Your task to perform on an android device: add a contact in the contacts app Image 0: 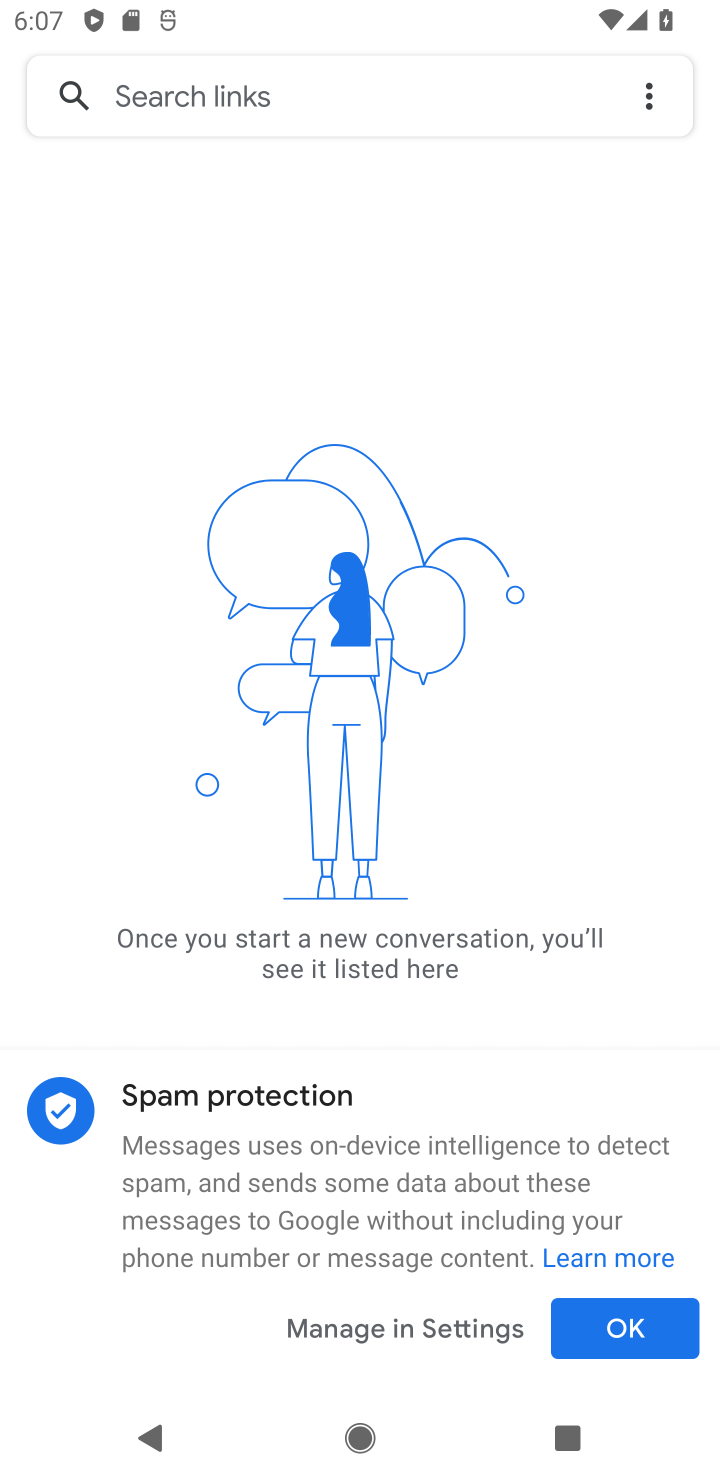
Step 0: press home button
Your task to perform on an android device: add a contact in the contacts app Image 1: 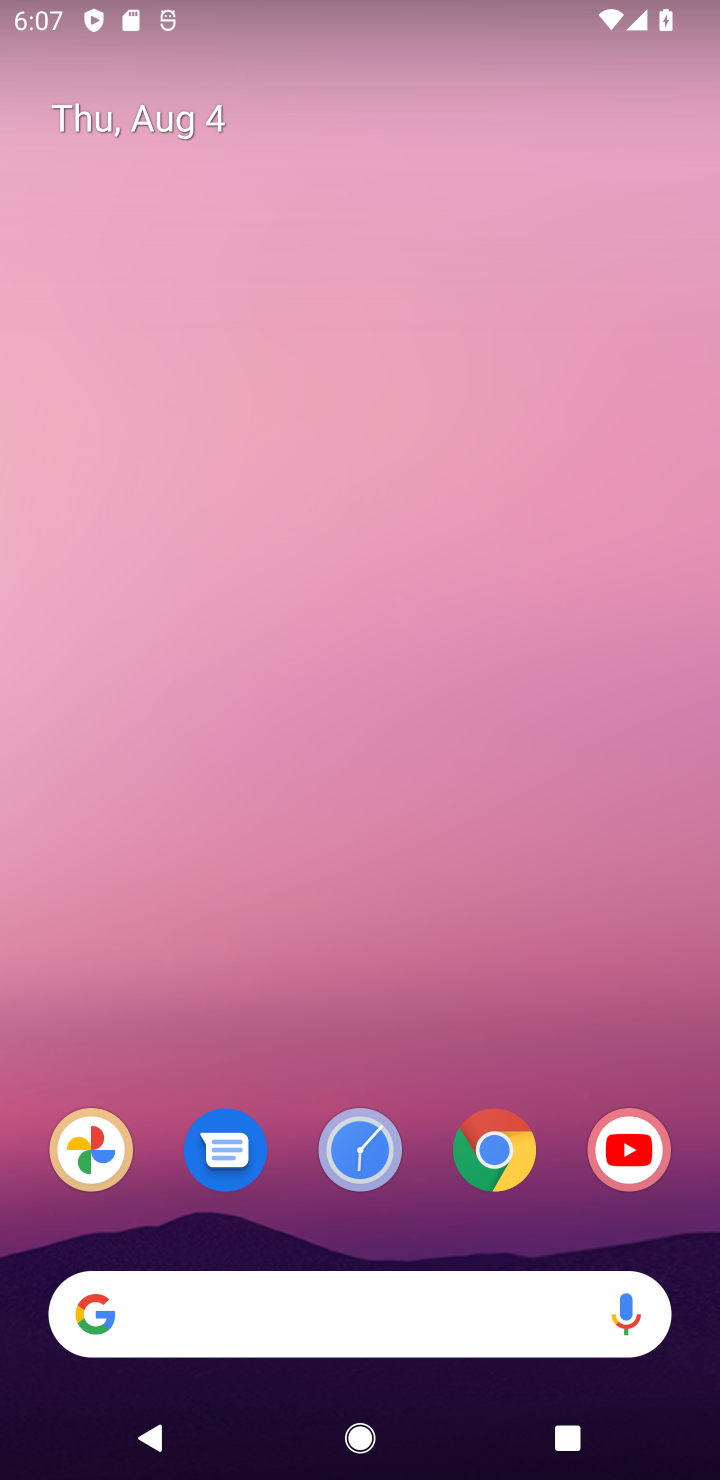
Step 1: drag from (310, 1312) to (393, 5)
Your task to perform on an android device: add a contact in the contacts app Image 2: 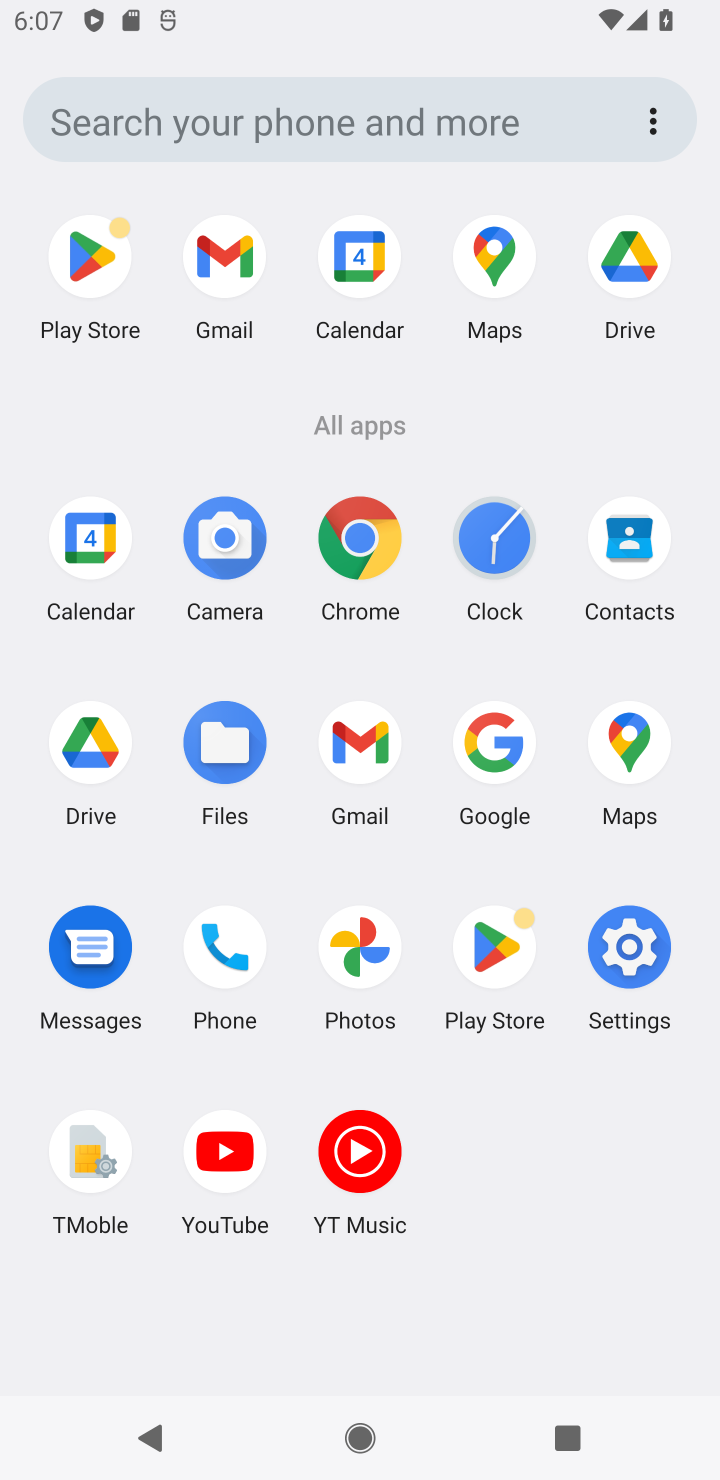
Step 2: click (614, 540)
Your task to perform on an android device: add a contact in the contacts app Image 3: 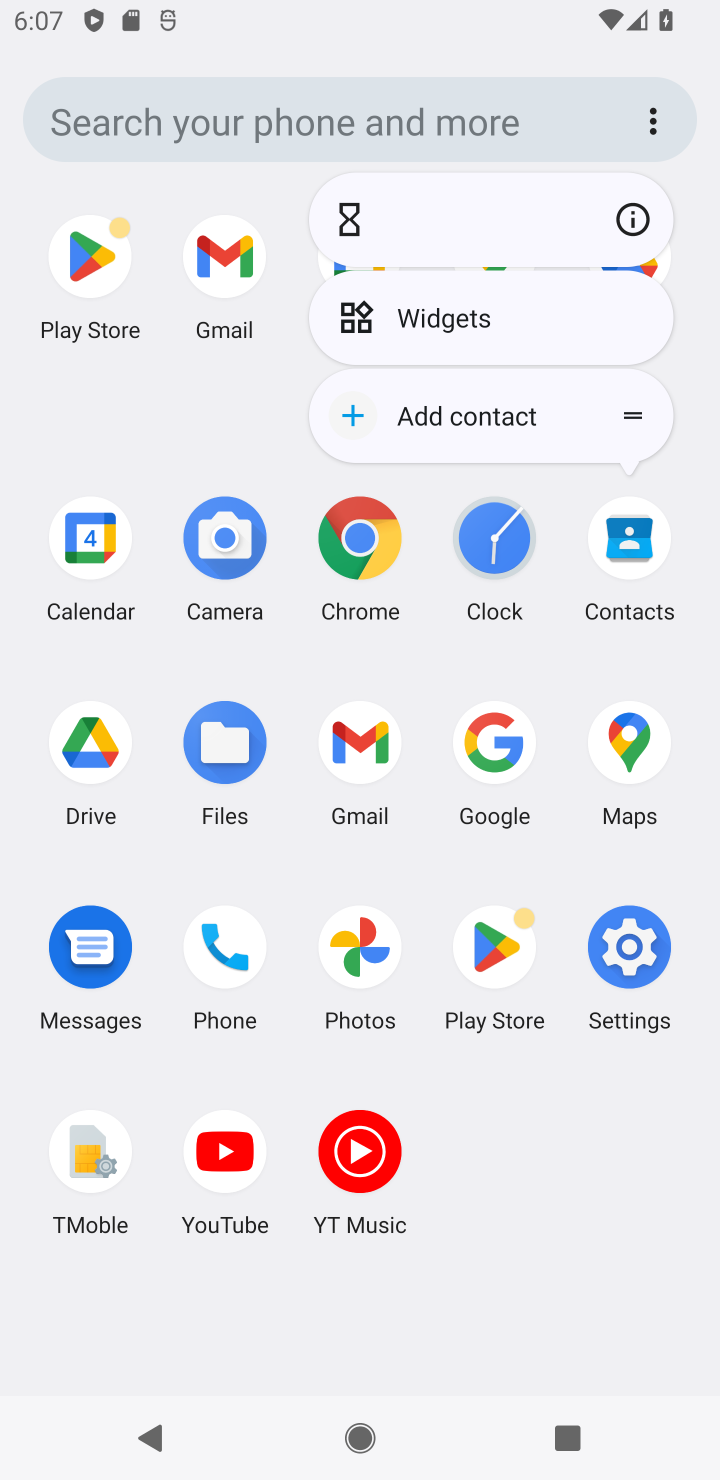
Step 3: click (673, 531)
Your task to perform on an android device: add a contact in the contacts app Image 4: 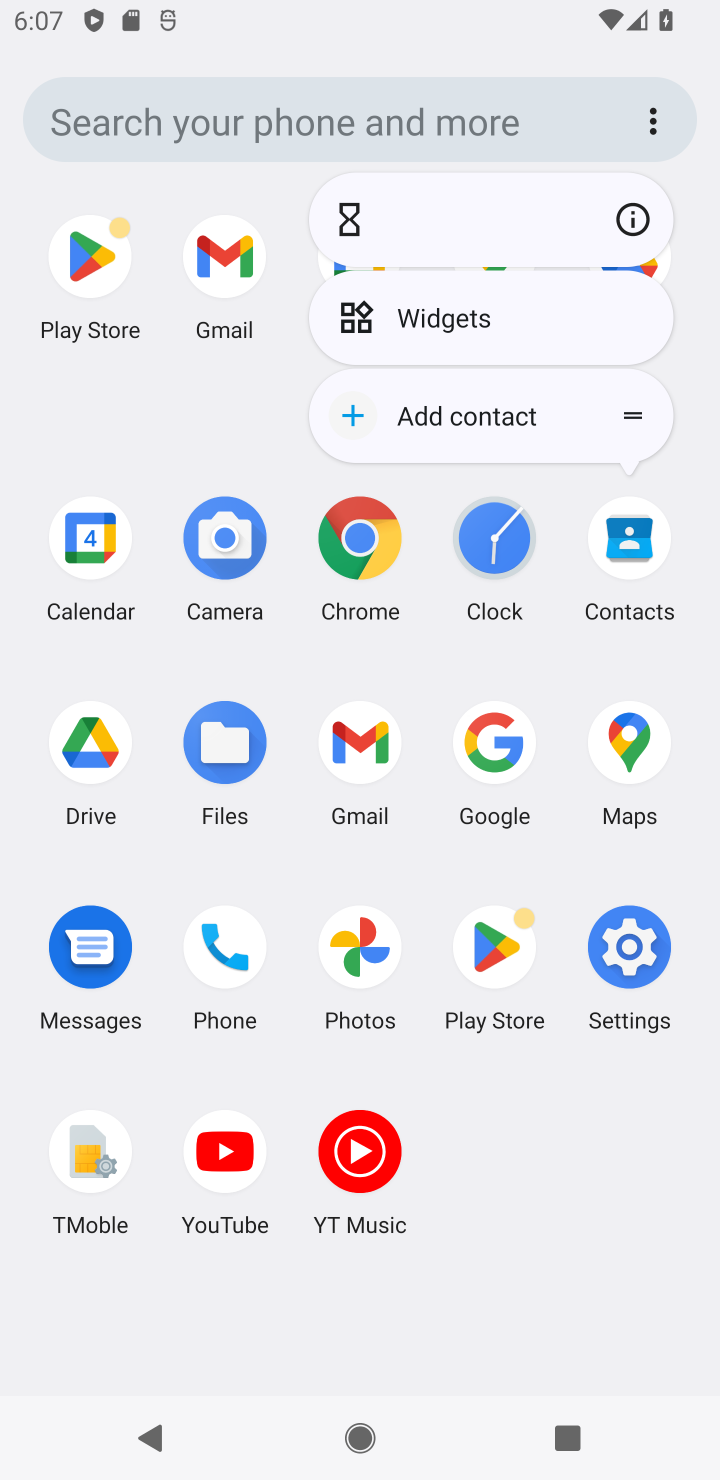
Step 4: click (649, 537)
Your task to perform on an android device: add a contact in the contacts app Image 5: 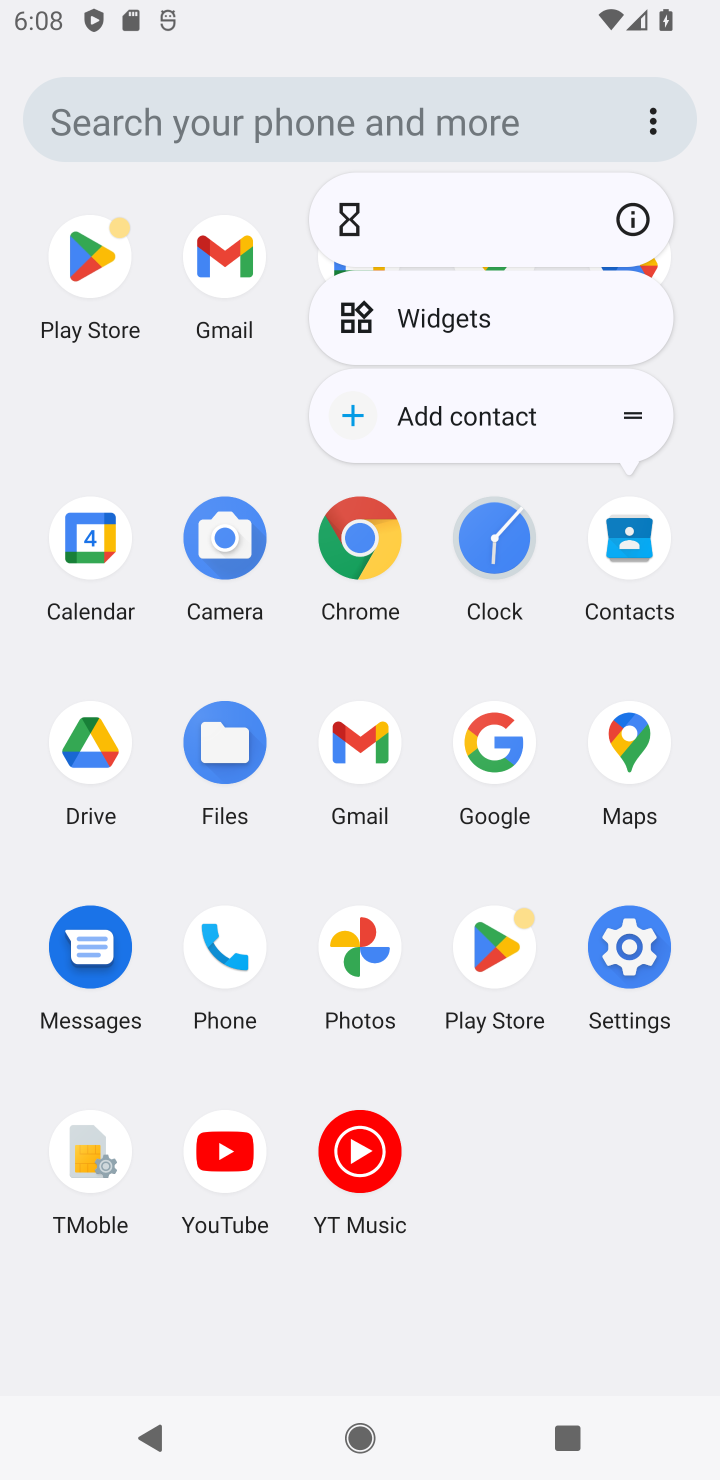
Step 5: click (621, 531)
Your task to perform on an android device: add a contact in the contacts app Image 6: 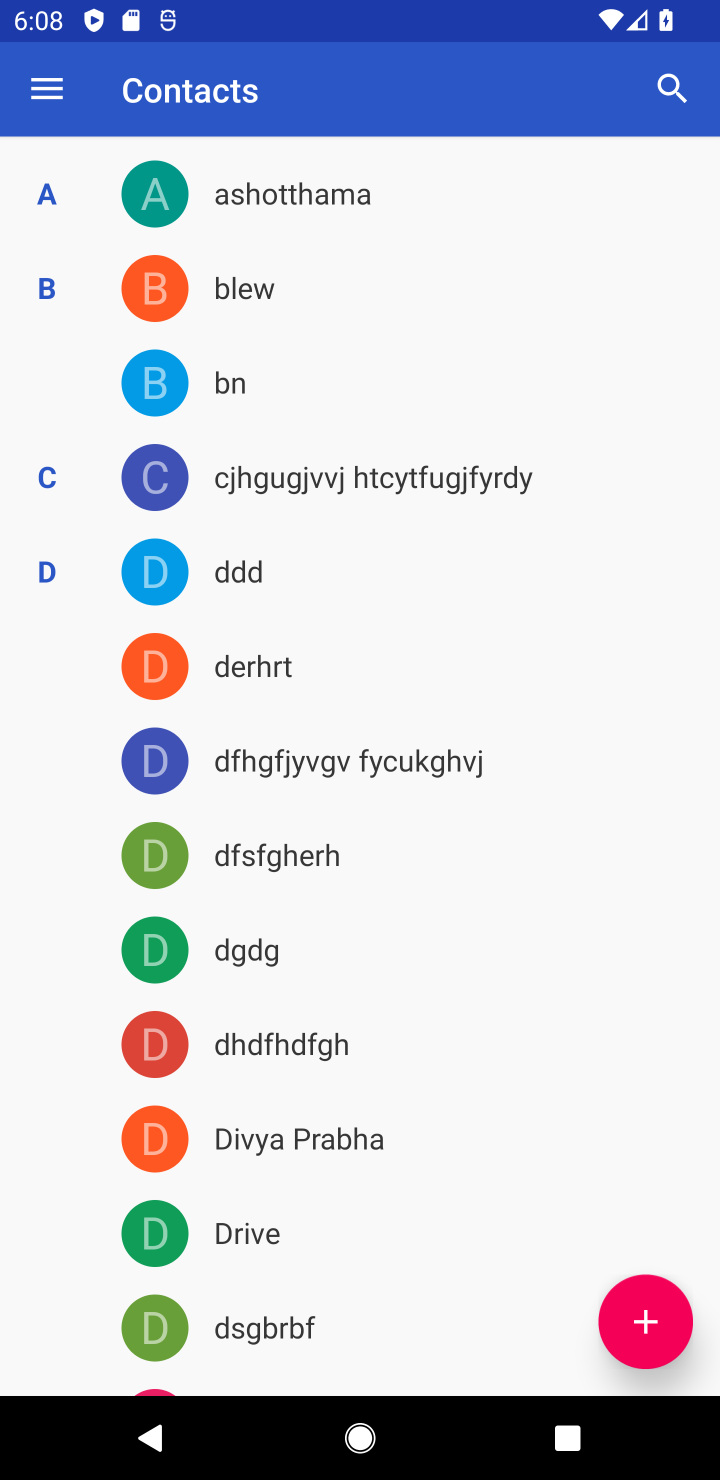
Step 6: click (640, 1323)
Your task to perform on an android device: add a contact in the contacts app Image 7: 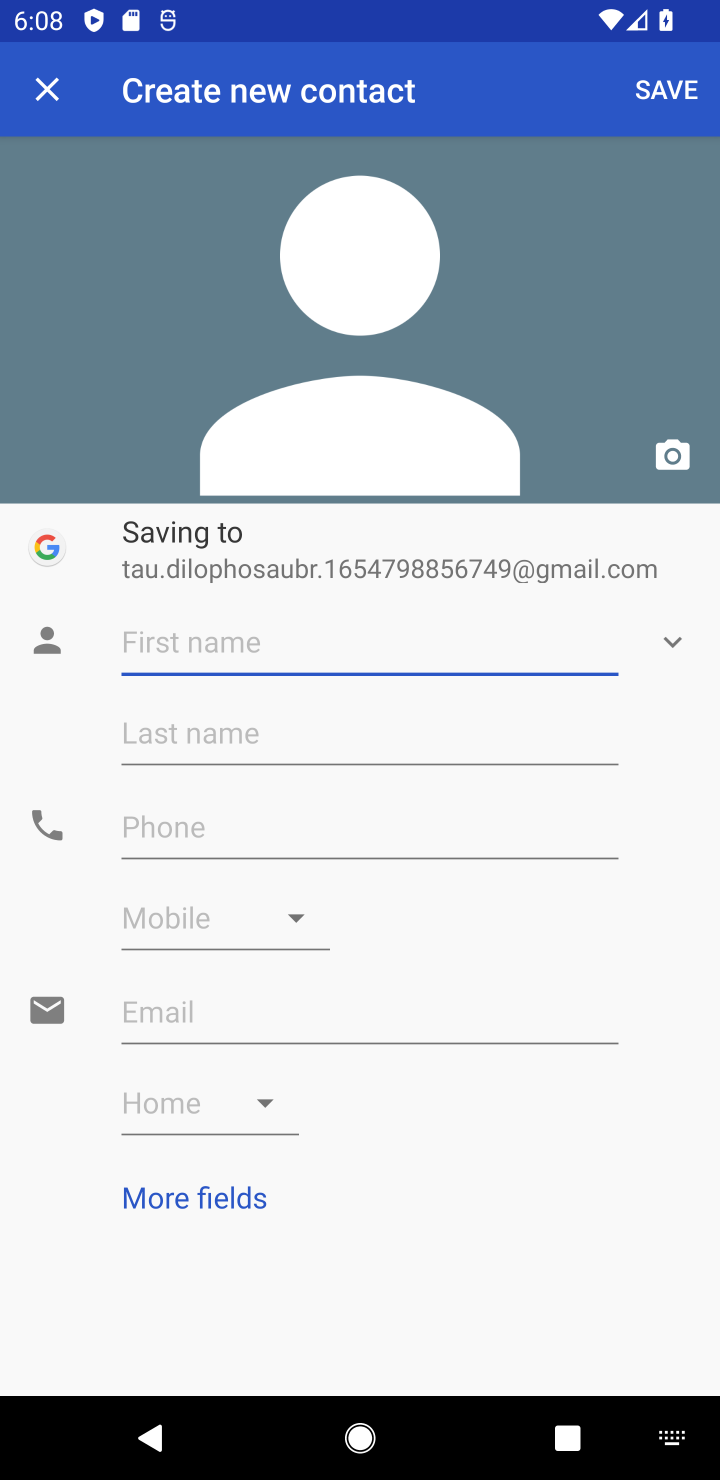
Step 7: type "utgfyff"
Your task to perform on an android device: add a contact in the contacts app Image 8: 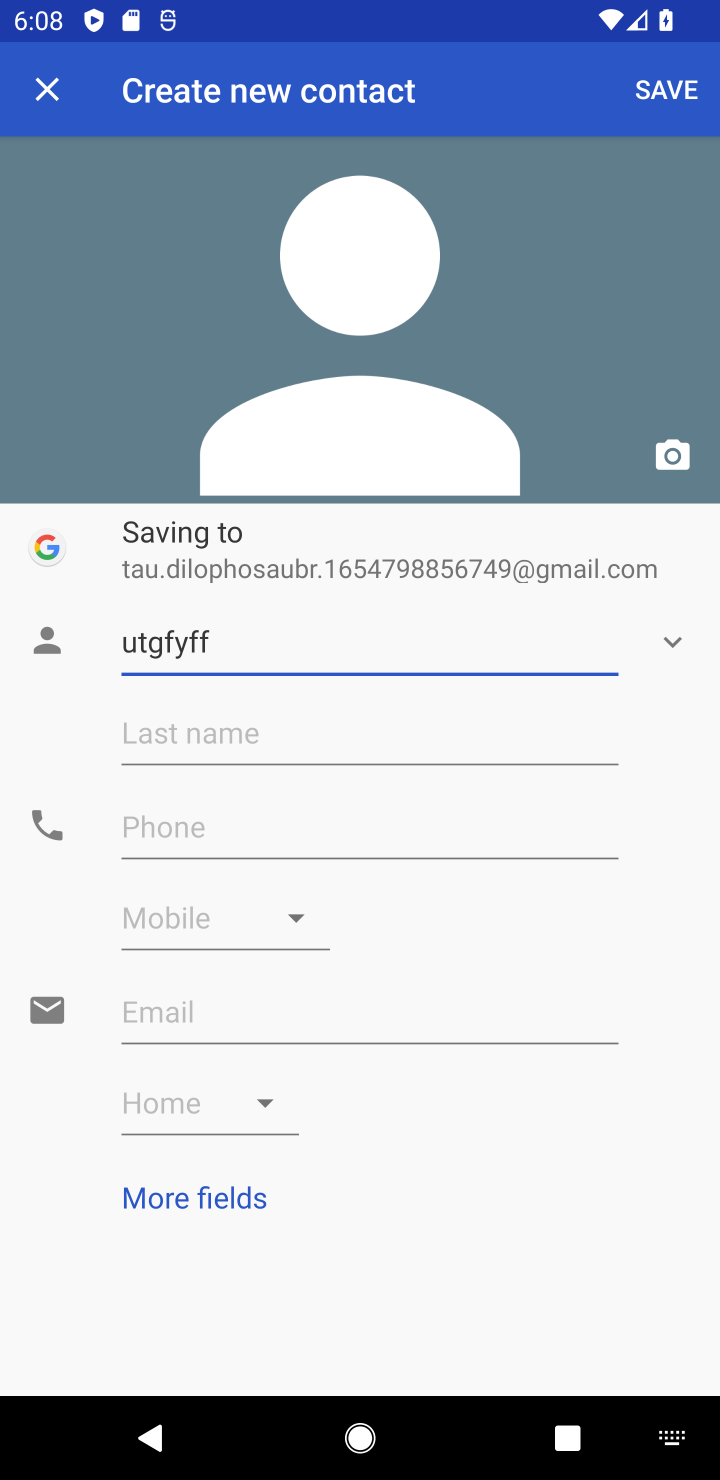
Step 8: click (135, 847)
Your task to perform on an android device: add a contact in the contacts app Image 9: 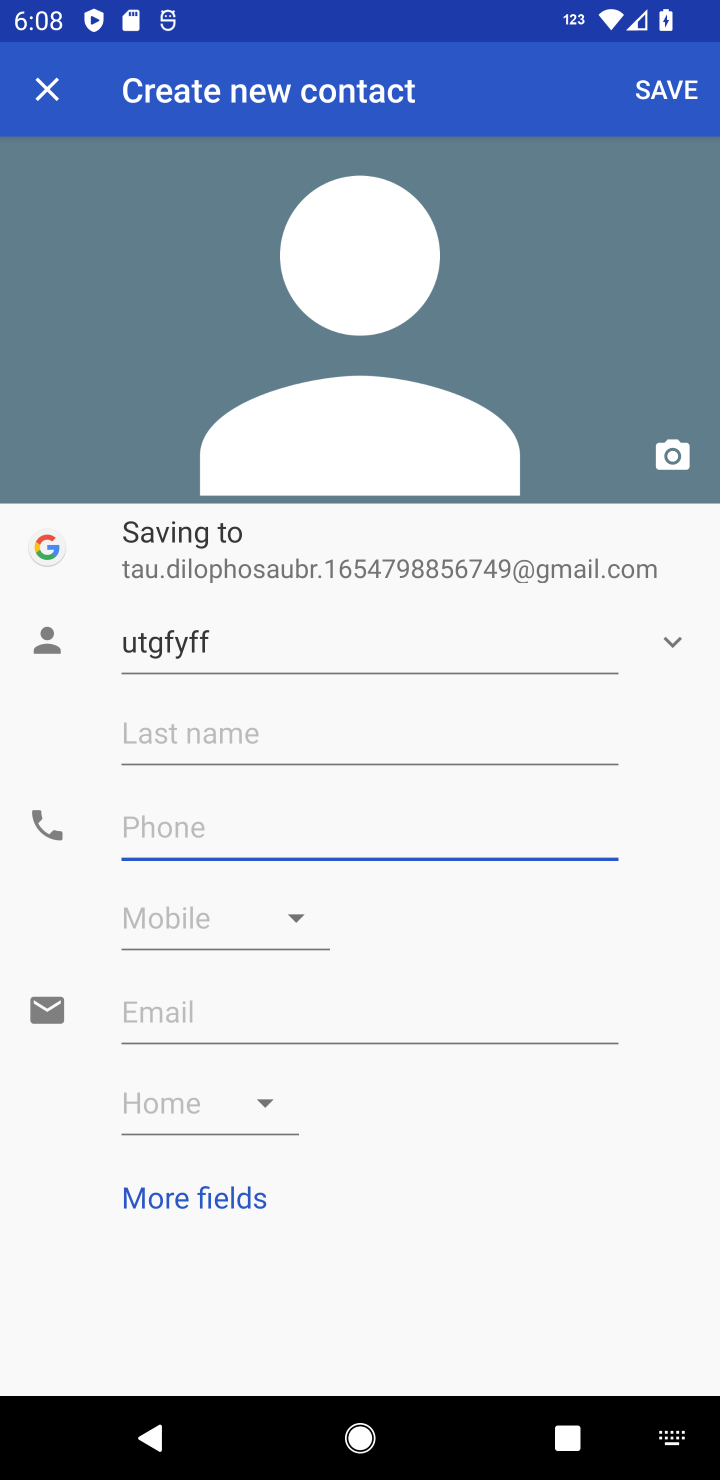
Step 9: type "9087656788"
Your task to perform on an android device: add a contact in the contacts app Image 10: 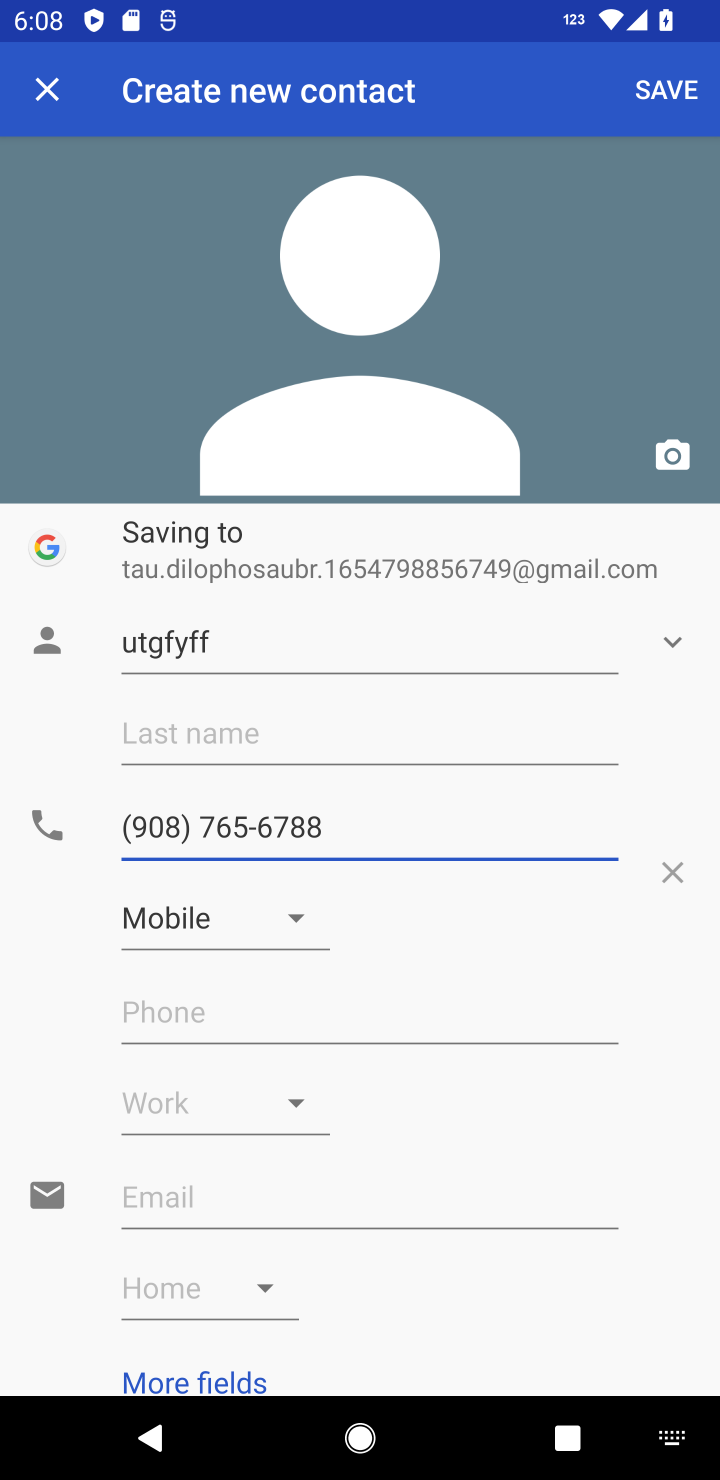
Step 10: click (645, 77)
Your task to perform on an android device: add a contact in the contacts app Image 11: 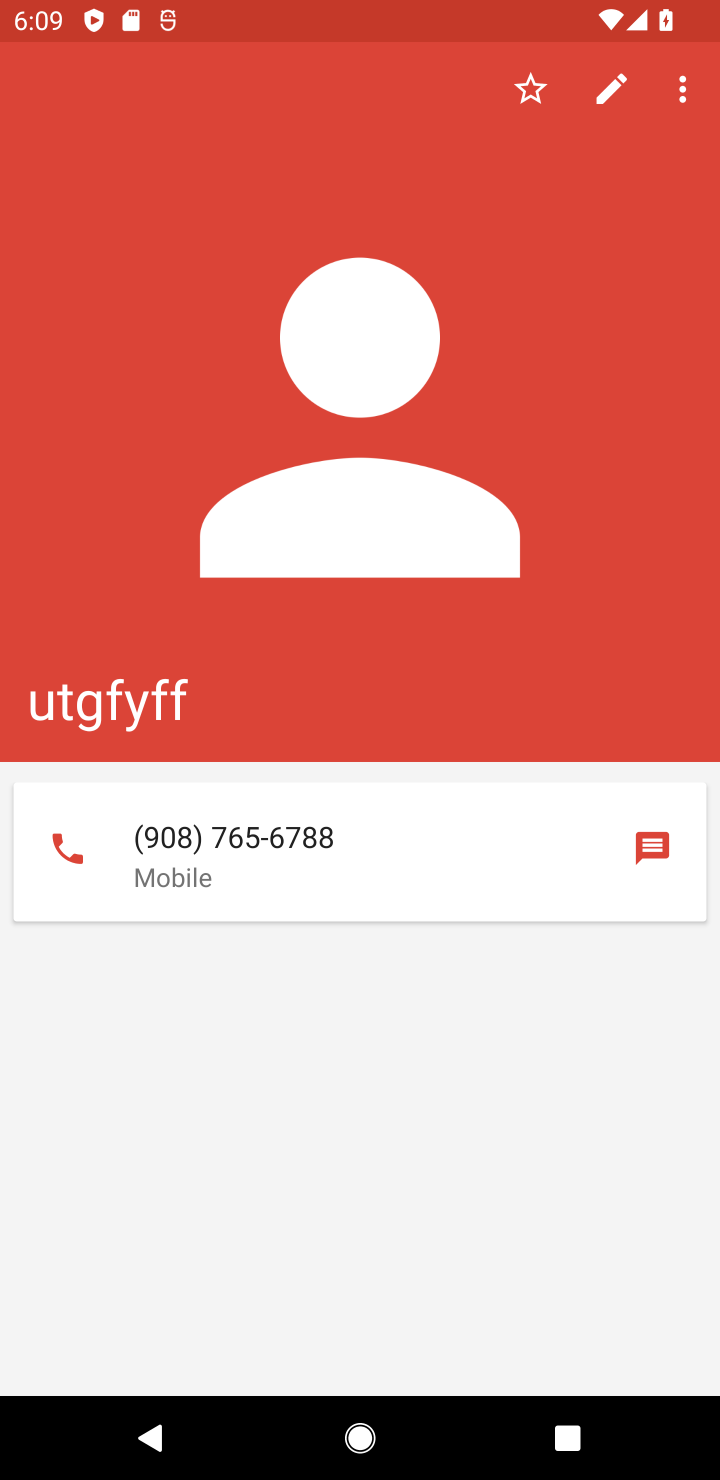
Step 11: task complete